Your task to perform on an android device: delete browsing data in the chrome app Image 0: 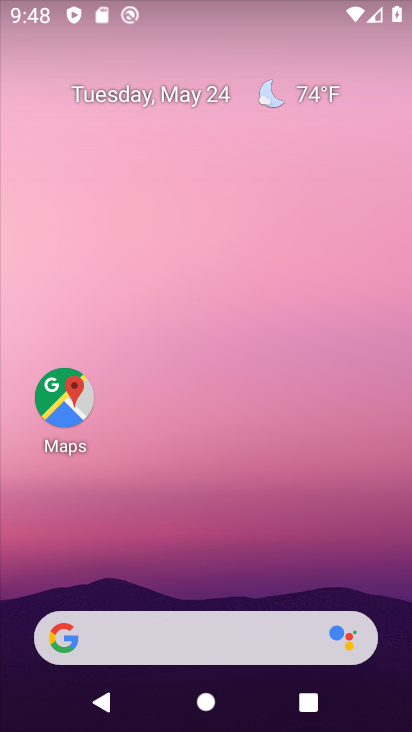
Step 0: drag from (157, 480) to (100, 123)
Your task to perform on an android device: delete browsing data in the chrome app Image 1: 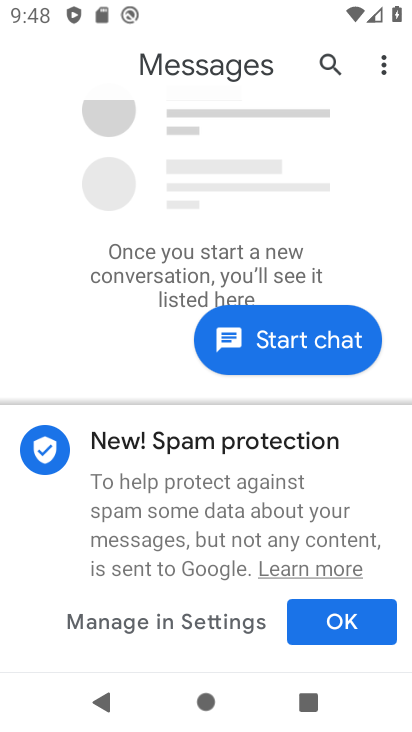
Step 1: press home button
Your task to perform on an android device: delete browsing data in the chrome app Image 2: 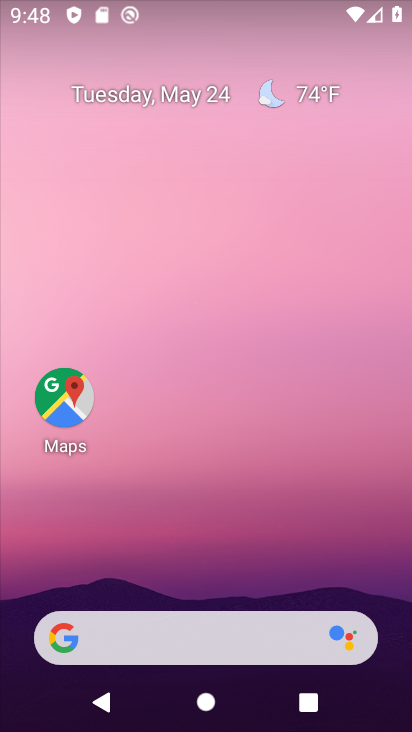
Step 2: drag from (231, 597) to (177, 81)
Your task to perform on an android device: delete browsing data in the chrome app Image 3: 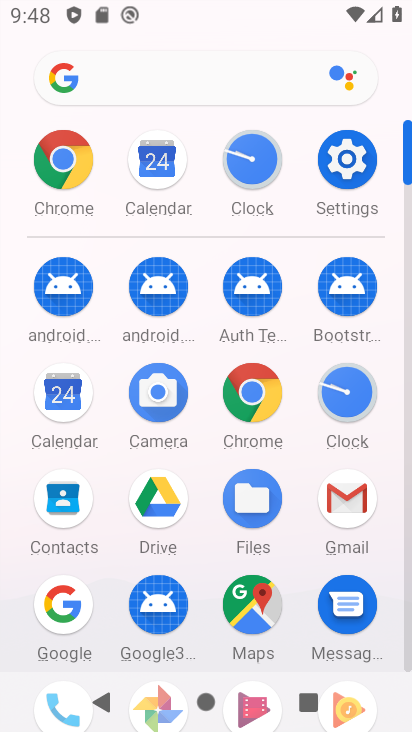
Step 3: click (235, 403)
Your task to perform on an android device: delete browsing data in the chrome app Image 4: 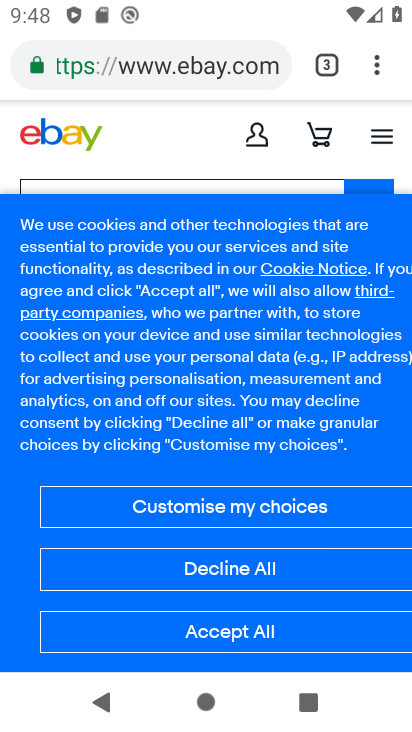
Step 4: click (376, 65)
Your task to perform on an android device: delete browsing data in the chrome app Image 5: 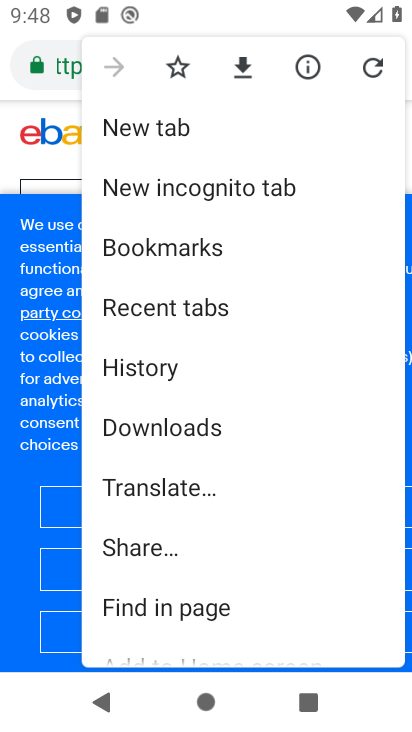
Step 5: click (184, 251)
Your task to perform on an android device: delete browsing data in the chrome app Image 6: 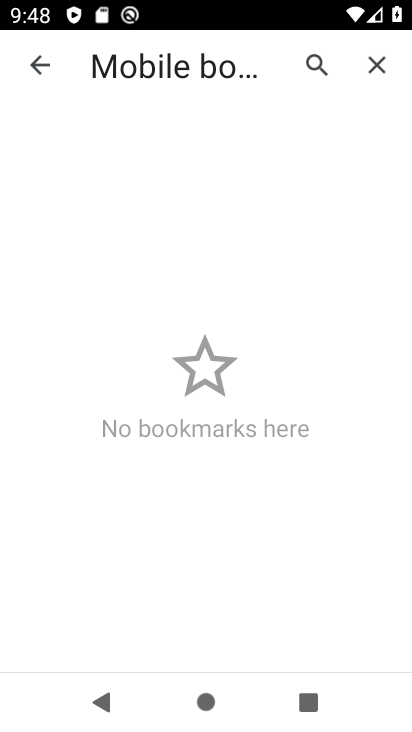
Step 6: click (39, 63)
Your task to perform on an android device: delete browsing data in the chrome app Image 7: 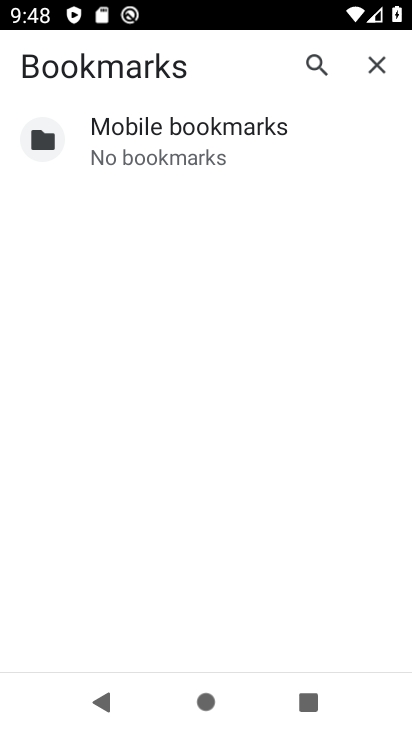
Step 7: click (380, 63)
Your task to perform on an android device: delete browsing data in the chrome app Image 8: 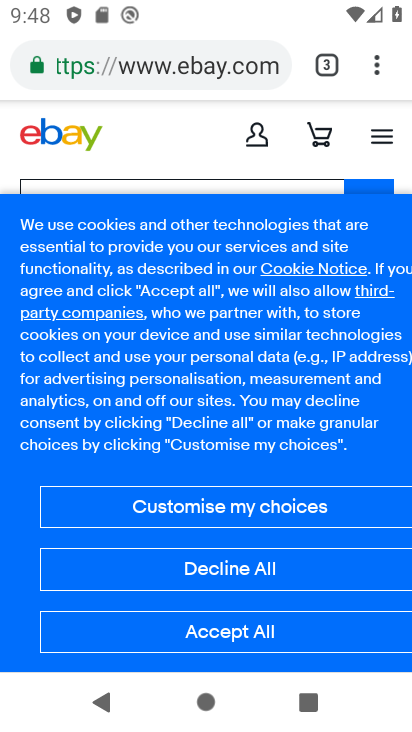
Step 8: click (376, 68)
Your task to perform on an android device: delete browsing data in the chrome app Image 9: 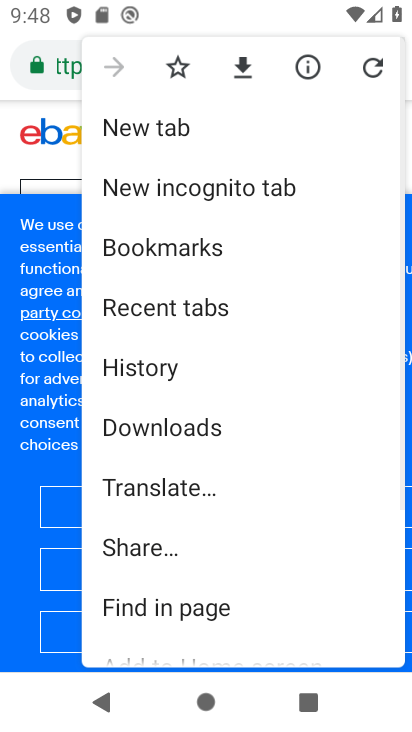
Step 9: click (143, 378)
Your task to perform on an android device: delete browsing data in the chrome app Image 10: 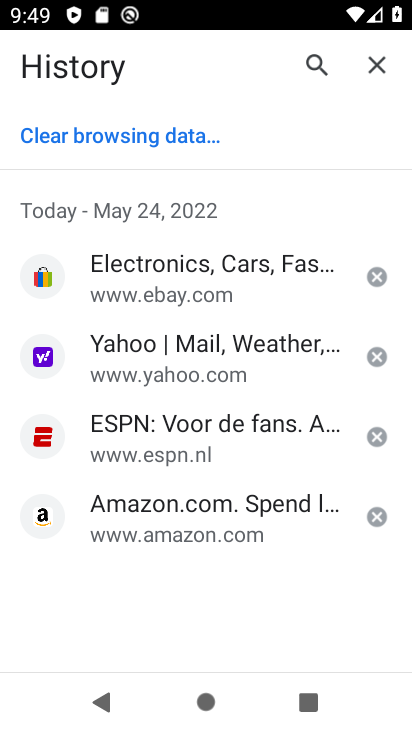
Step 10: click (120, 140)
Your task to perform on an android device: delete browsing data in the chrome app Image 11: 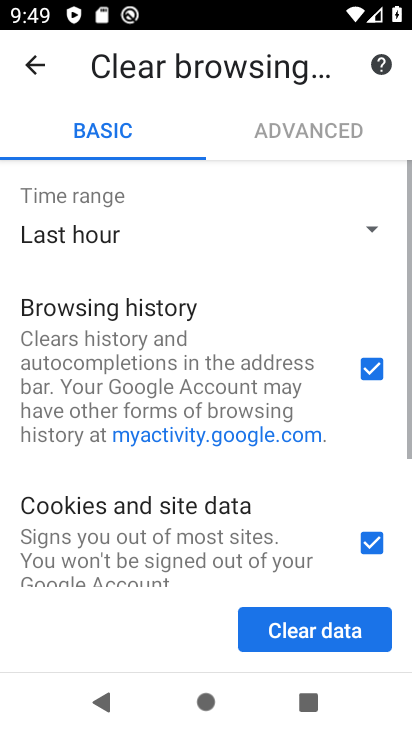
Step 11: click (324, 624)
Your task to perform on an android device: delete browsing data in the chrome app Image 12: 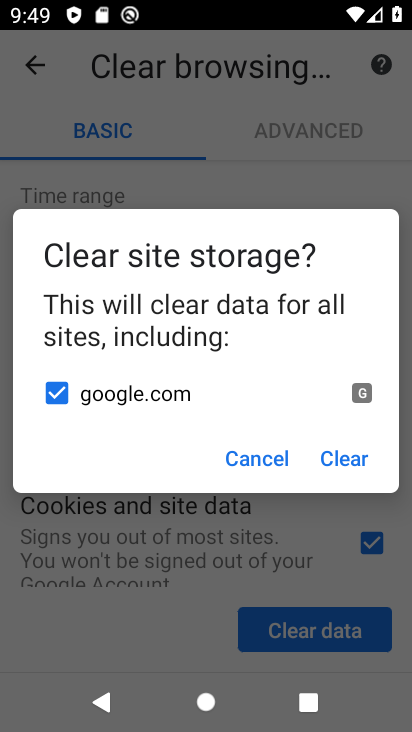
Step 12: click (339, 448)
Your task to perform on an android device: delete browsing data in the chrome app Image 13: 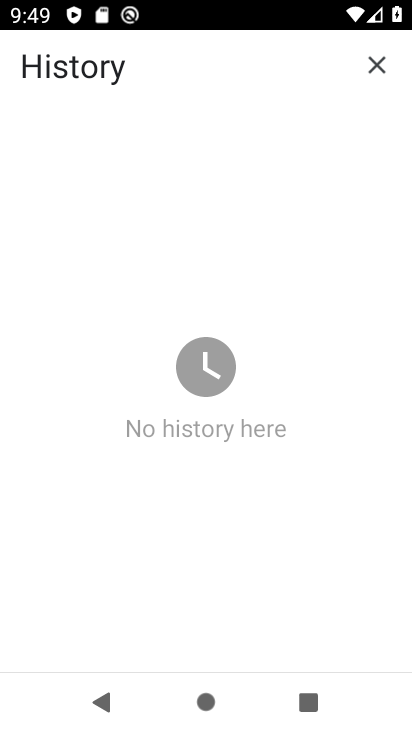
Step 13: task complete